Your task to perform on an android device: Open Google Maps and go to "Timeline" Image 0: 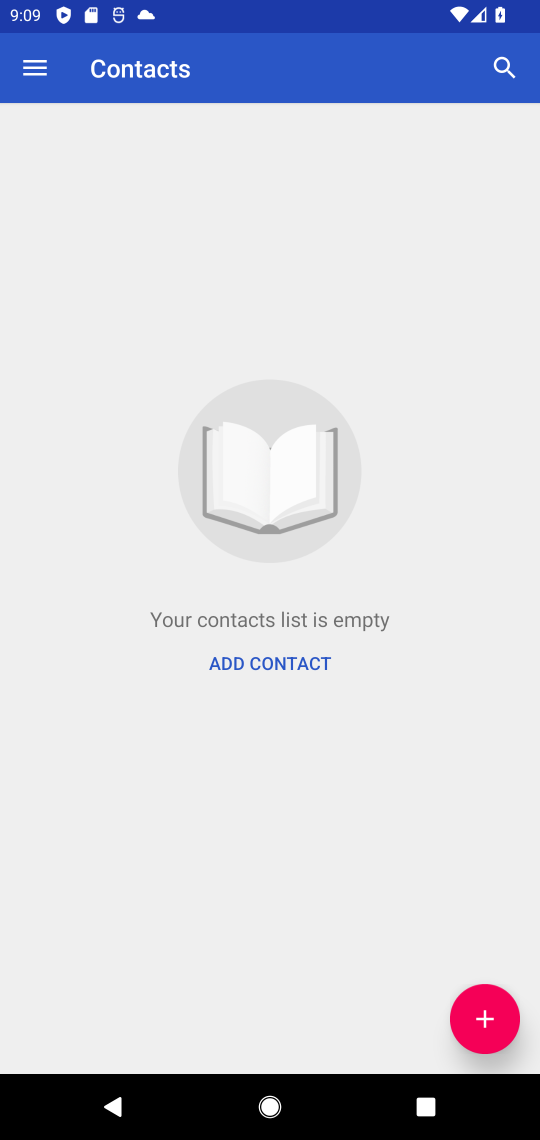
Step 0: press home button
Your task to perform on an android device: Open Google Maps and go to "Timeline" Image 1: 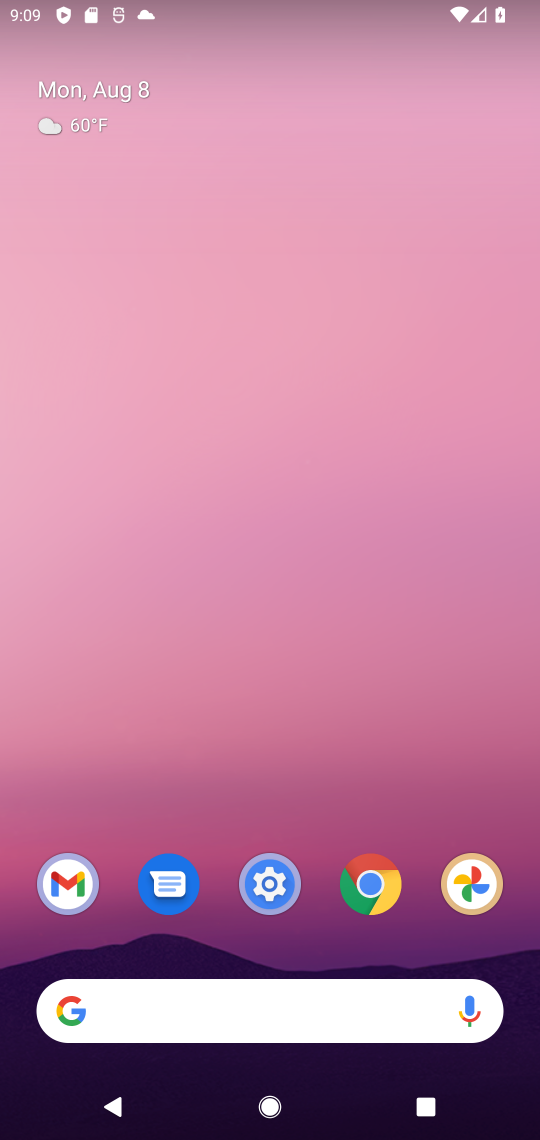
Step 1: drag from (440, 824) to (409, 32)
Your task to perform on an android device: Open Google Maps and go to "Timeline" Image 2: 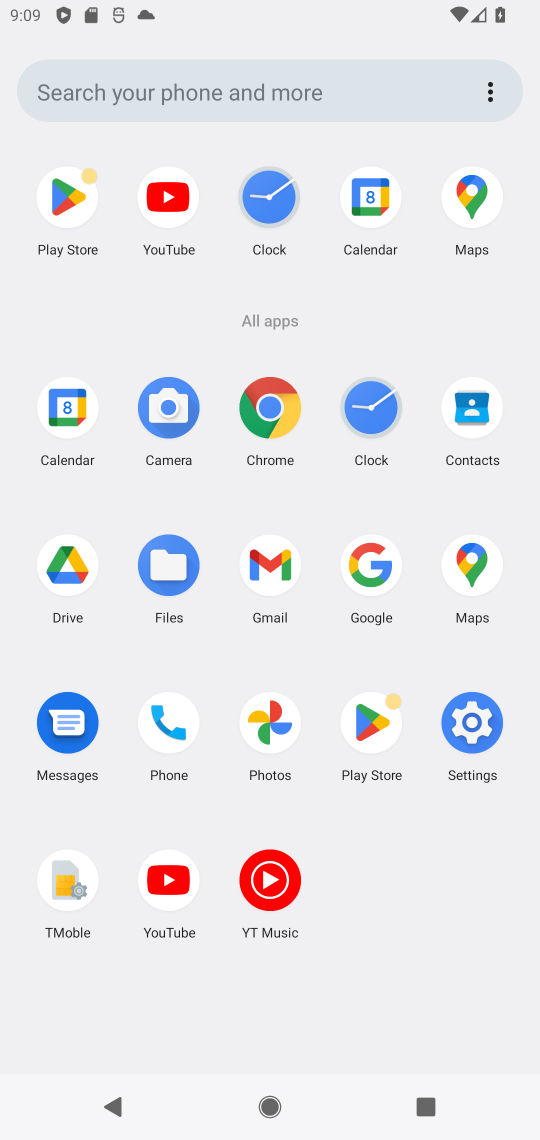
Step 2: click (457, 237)
Your task to perform on an android device: Open Google Maps and go to "Timeline" Image 3: 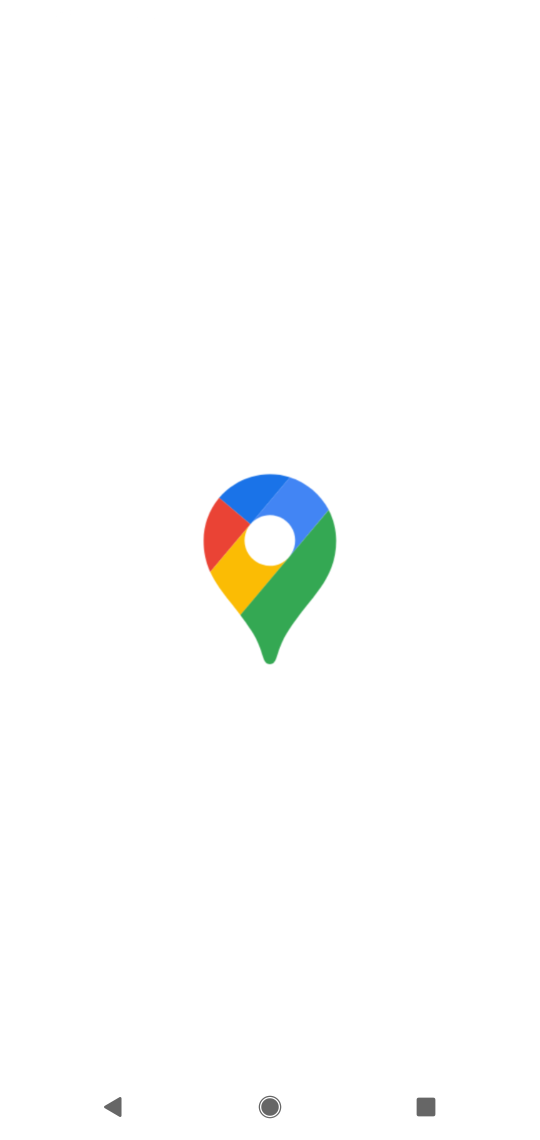
Step 3: task complete